Your task to perform on an android device: delete browsing data in the chrome app Image 0: 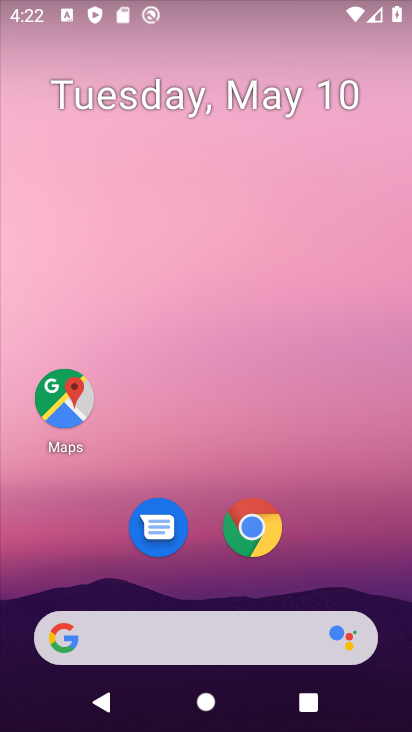
Step 0: click (264, 517)
Your task to perform on an android device: delete browsing data in the chrome app Image 1: 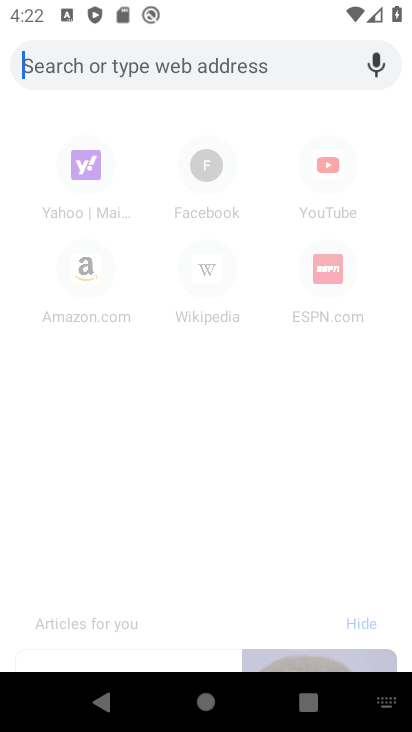
Step 1: click (264, 517)
Your task to perform on an android device: delete browsing data in the chrome app Image 2: 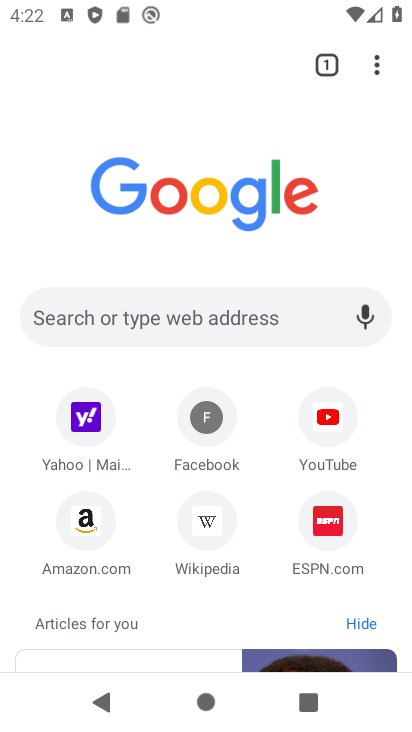
Step 2: click (374, 63)
Your task to perform on an android device: delete browsing data in the chrome app Image 3: 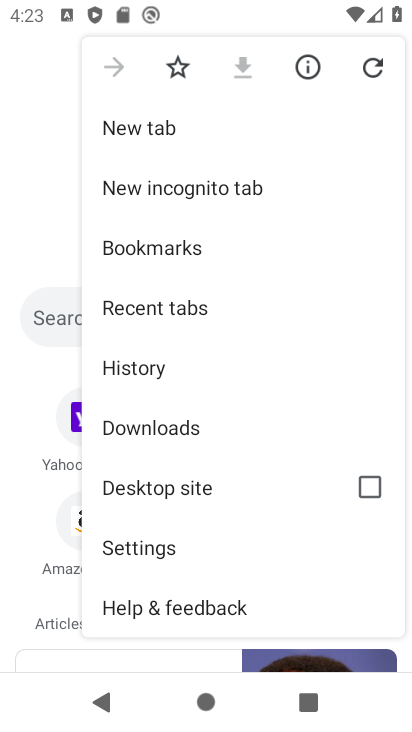
Step 3: click (159, 368)
Your task to perform on an android device: delete browsing data in the chrome app Image 4: 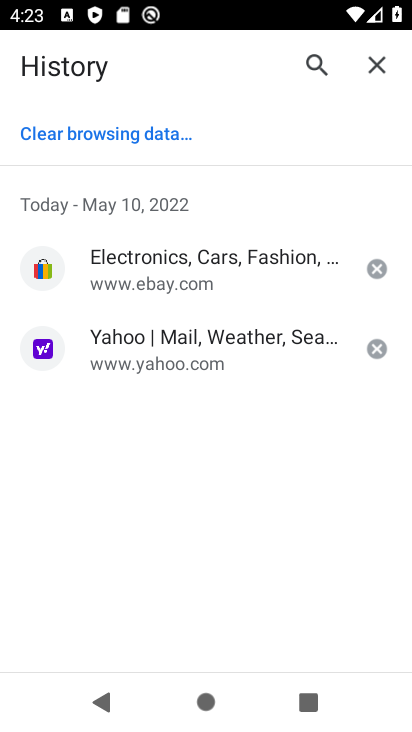
Step 4: click (140, 128)
Your task to perform on an android device: delete browsing data in the chrome app Image 5: 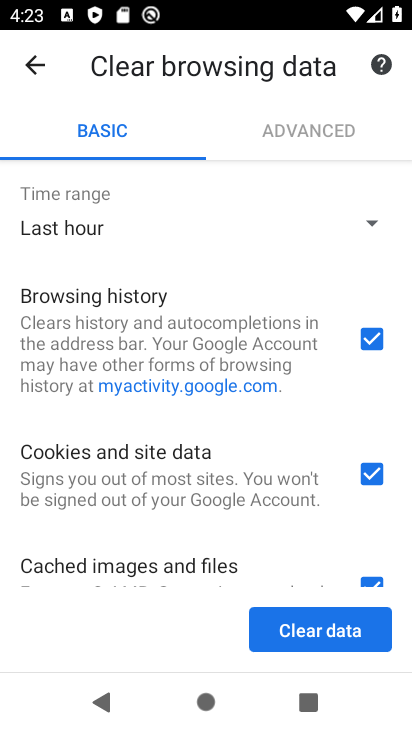
Step 5: click (316, 631)
Your task to perform on an android device: delete browsing data in the chrome app Image 6: 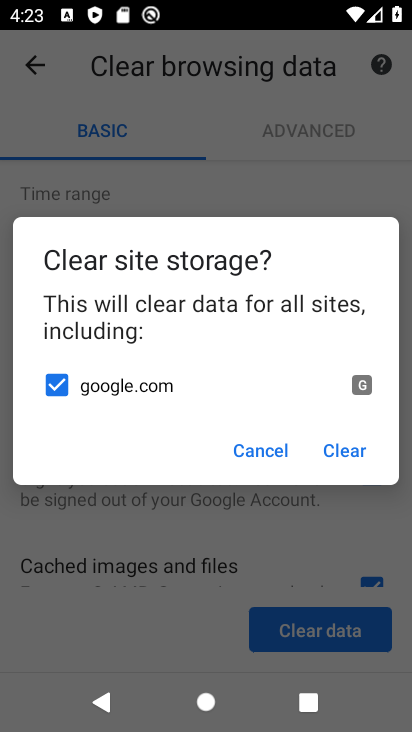
Step 6: click (353, 445)
Your task to perform on an android device: delete browsing data in the chrome app Image 7: 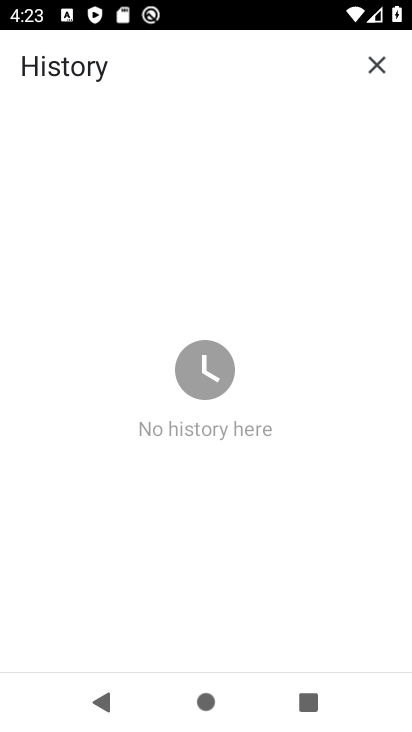
Step 7: task complete